Your task to perform on an android device: Do I have any events today? Image 0: 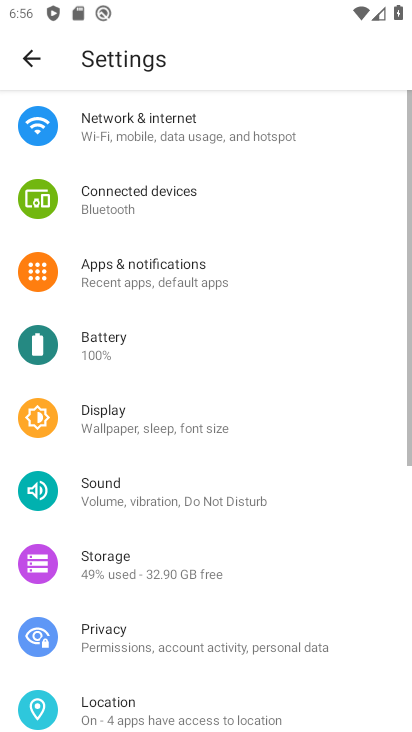
Step 0: press home button
Your task to perform on an android device: Do I have any events today? Image 1: 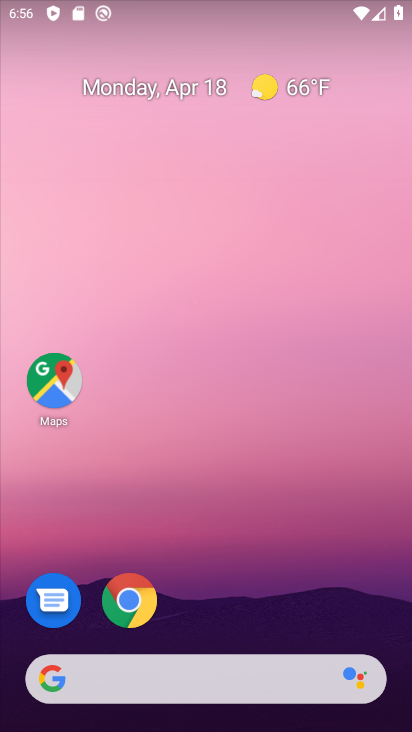
Step 1: drag from (245, 547) to (263, 11)
Your task to perform on an android device: Do I have any events today? Image 2: 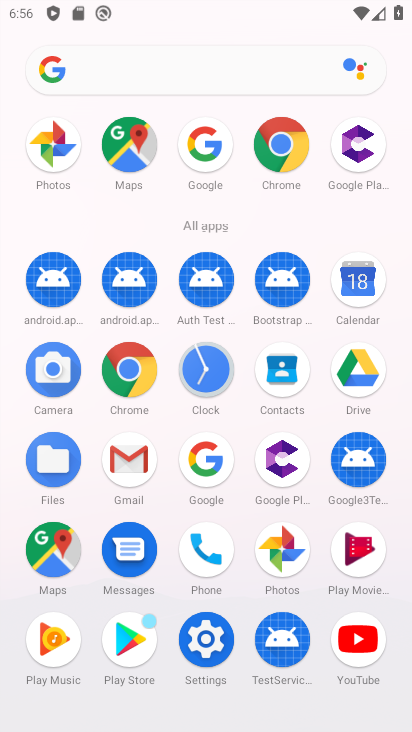
Step 2: click (364, 287)
Your task to perform on an android device: Do I have any events today? Image 3: 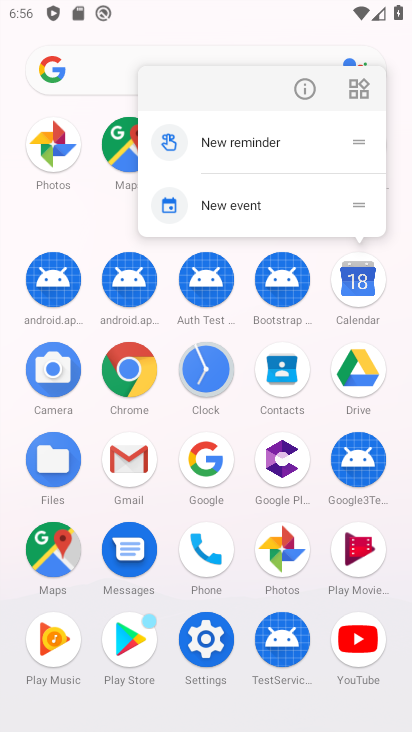
Step 3: click (363, 288)
Your task to perform on an android device: Do I have any events today? Image 4: 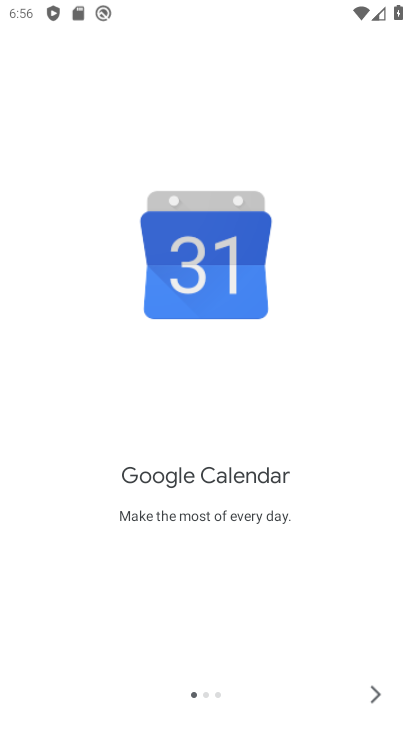
Step 4: click (383, 697)
Your task to perform on an android device: Do I have any events today? Image 5: 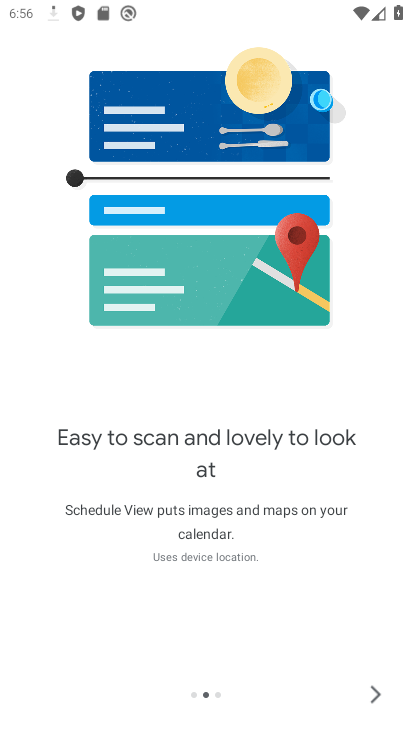
Step 5: click (383, 697)
Your task to perform on an android device: Do I have any events today? Image 6: 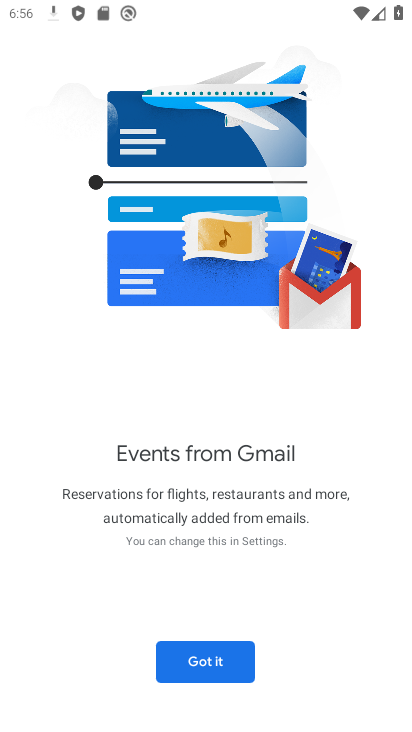
Step 6: click (220, 662)
Your task to perform on an android device: Do I have any events today? Image 7: 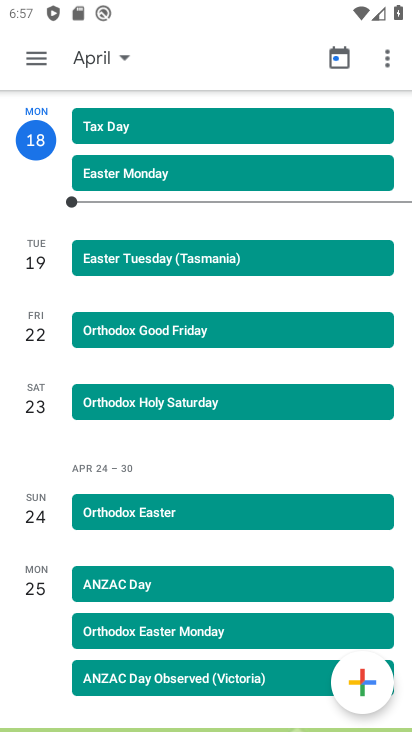
Step 7: click (124, 51)
Your task to perform on an android device: Do I have any events today? Image 8: 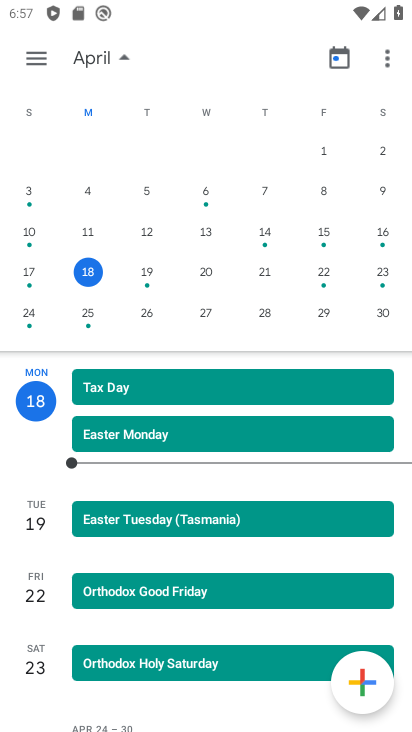
Step 8: click (80, 272)
Your task to perform on an android device: Do I have any events today? Image 9: 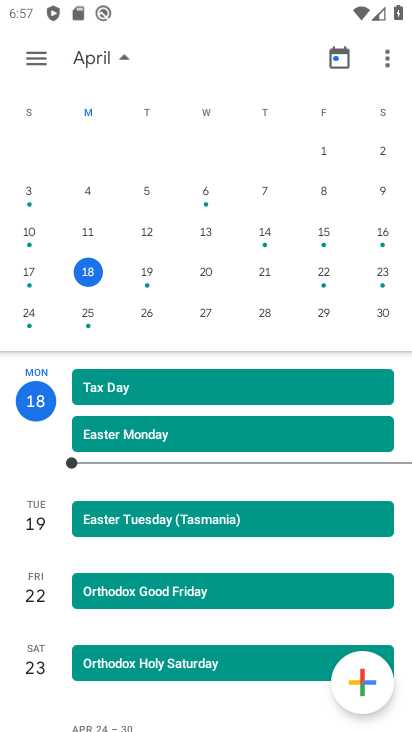
Step 9: click (26, 57)
Your task to perform on an android device: Do I have any events today? Image 10: 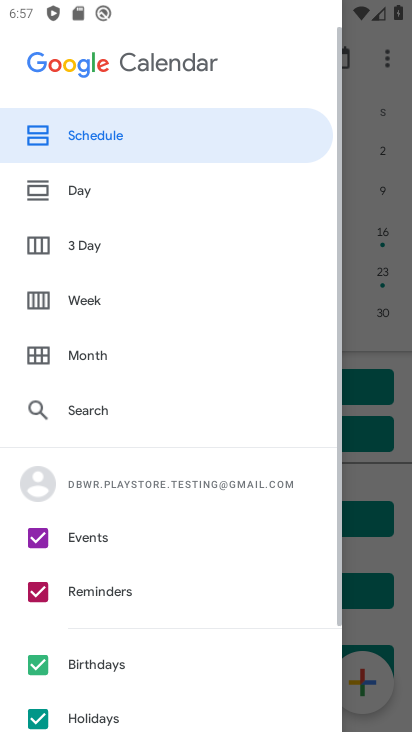
Step 10: click (85, 190)
Your task to perform on an android device: Do I have any events today? Image 11: 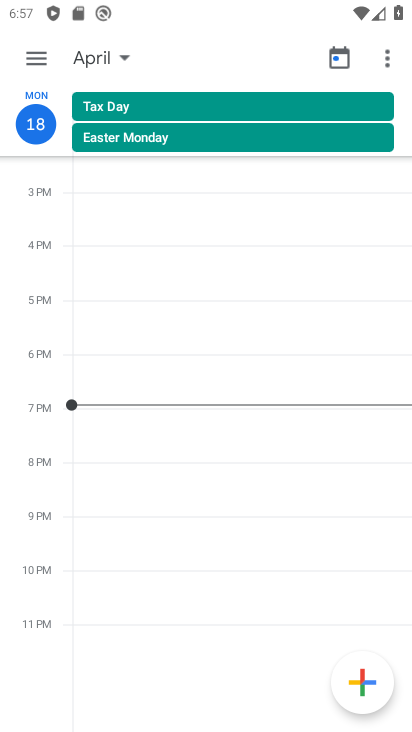
Step 11: task complete